Your task to perform on an android device: toggle notifications settings in the gmail app Image 0: 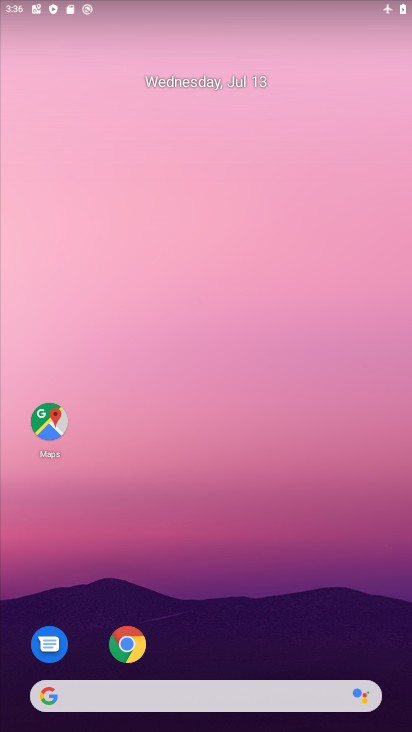
Step 0: drag from (185, 248) to (118, 0)
Your task to perform on an android device: toggle notifications settings in the gmail app Image 1: 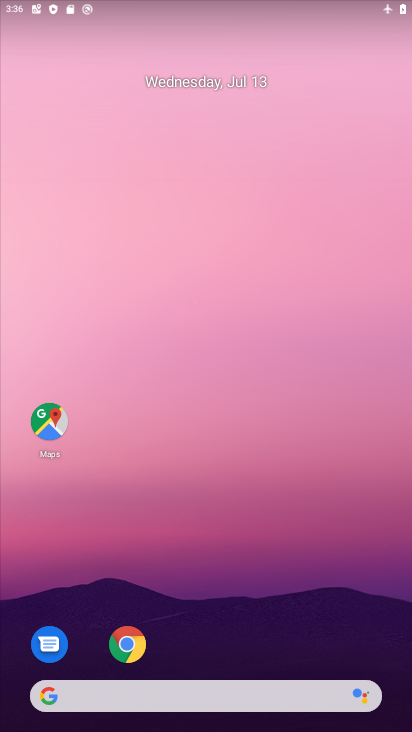
Step 1: drag from (301, 591) to (236, 116)
Your task to perform on an android device: toggle notifications settings in the gmail app Image 2: 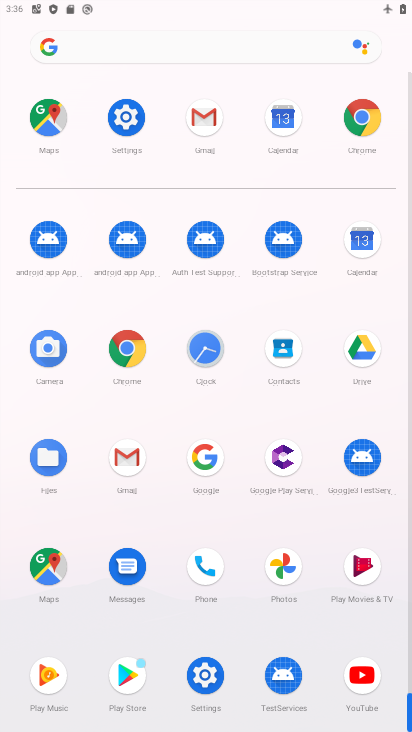
Step 2: click (209, 113)
Your task to perform on an android device: toggle notifications settings in the gmail app Image 3: 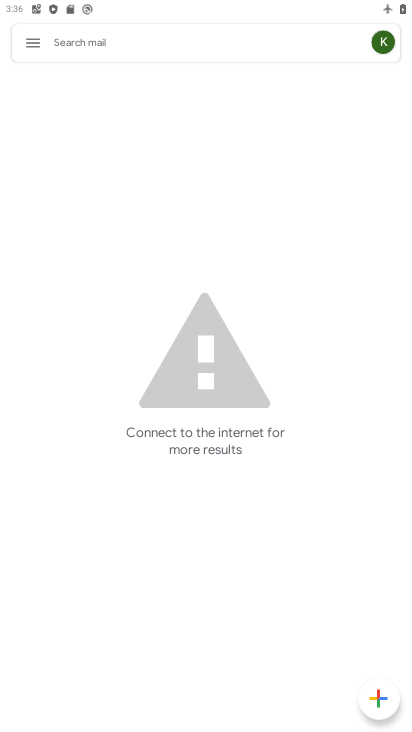
Step 3: click (36, 42)
Your task to perform on an android device: toggle notifications settings in the gmail app Image 4: 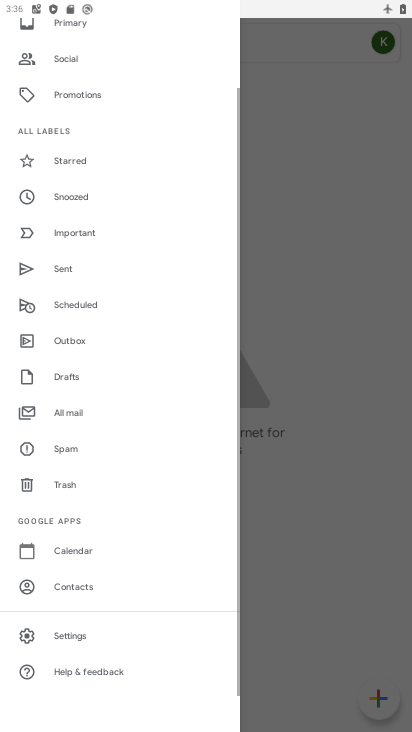
Step 4: click (70, 645)
Your task to perform on an android device: toggle notifications settings in the gmail app Image 5: 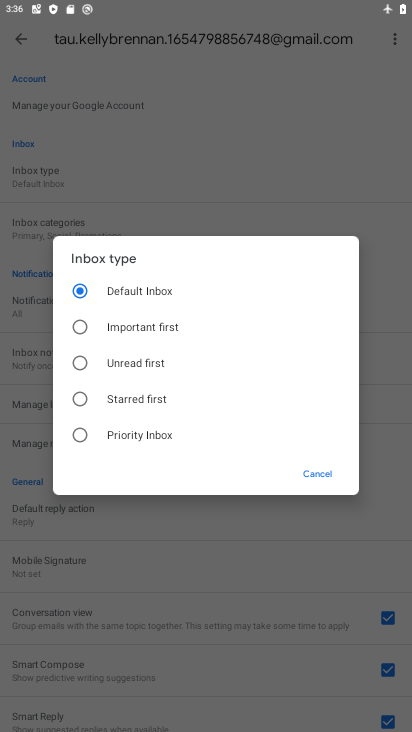
Step 5: click (329, 474)
Your task to perform on an android device: toggle notifications settings in the gmail app Image 6: 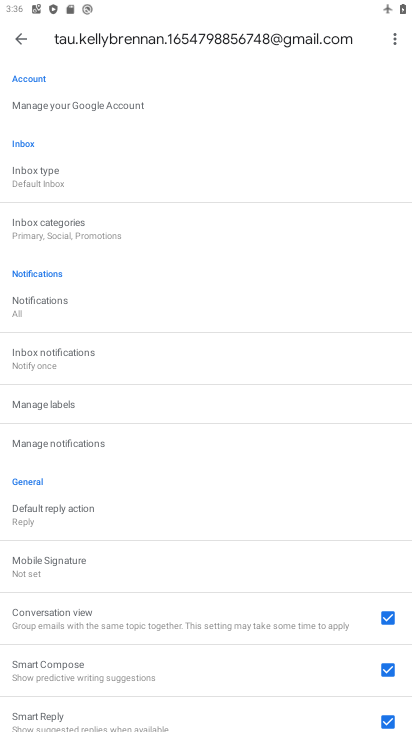
Step 6: click (47, 440)
Your task to perform on an android device: toggle notifications settings in the gmail app Image 7: 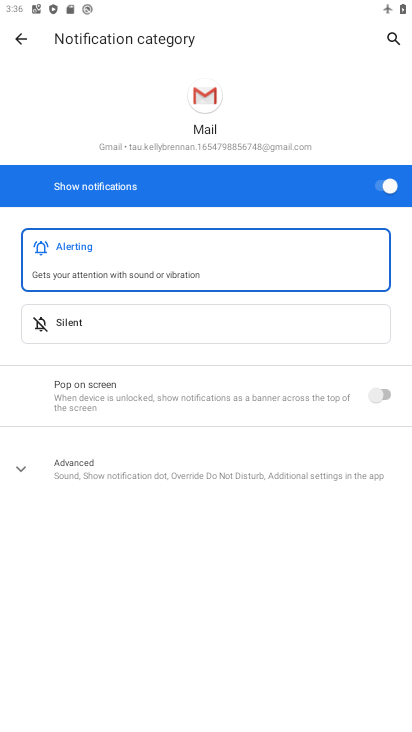
Step 7: click (383, 194)
Your task to perform on an android device: toggle notifications settings in the gmail app Image 8: 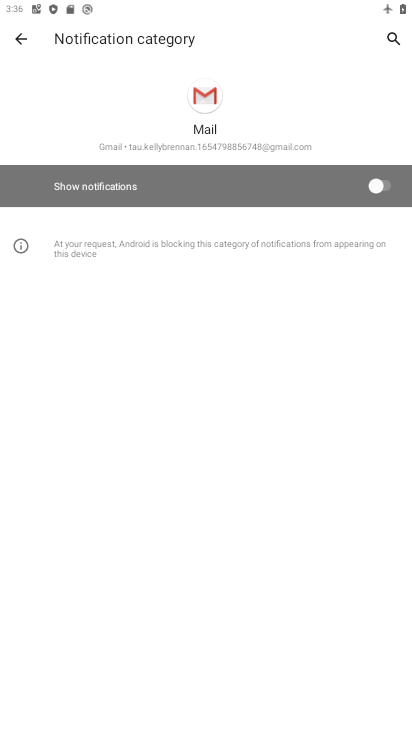
Step 8: task complete